Your task to perform on an android device: see tabs open on other devices in the chrome app Image 0: 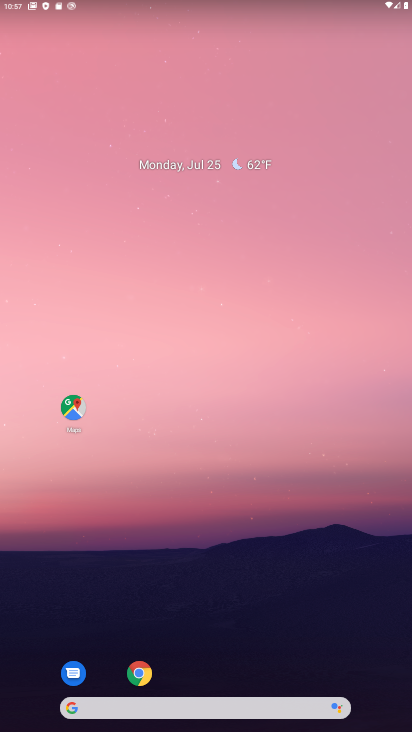
Step 0: click (131, 674)
Your task to perform on an android device: see tabs open on other devices in the chrome app Image 1: 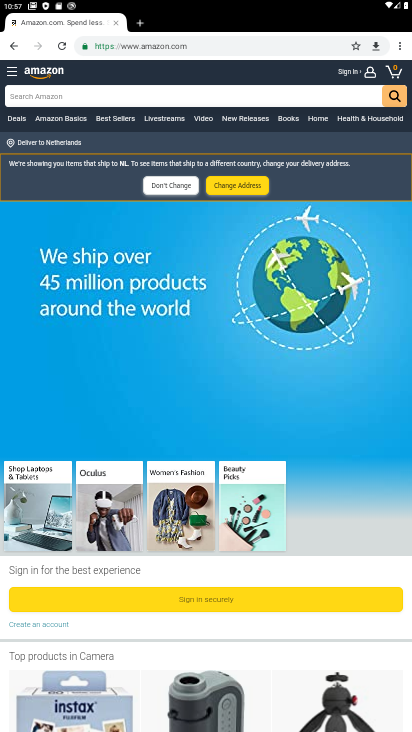
Step 1: click (397, 43)
Your task to perform on an android device: see tabs open on other devices in the chrome app Image 2: 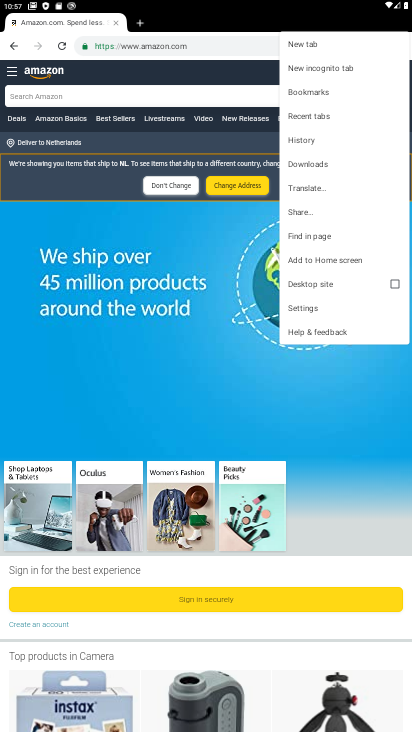
Step 2: click (306, 118)
Your task to perform on an android device: see tabs open on other devices in the chrome app Image 3: 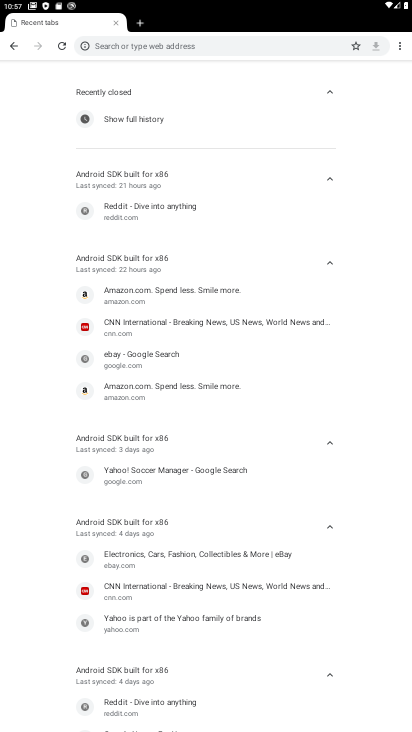
Step 3: task complete